Your task to perform on an android device: change your default location settings in chrome Image 0: 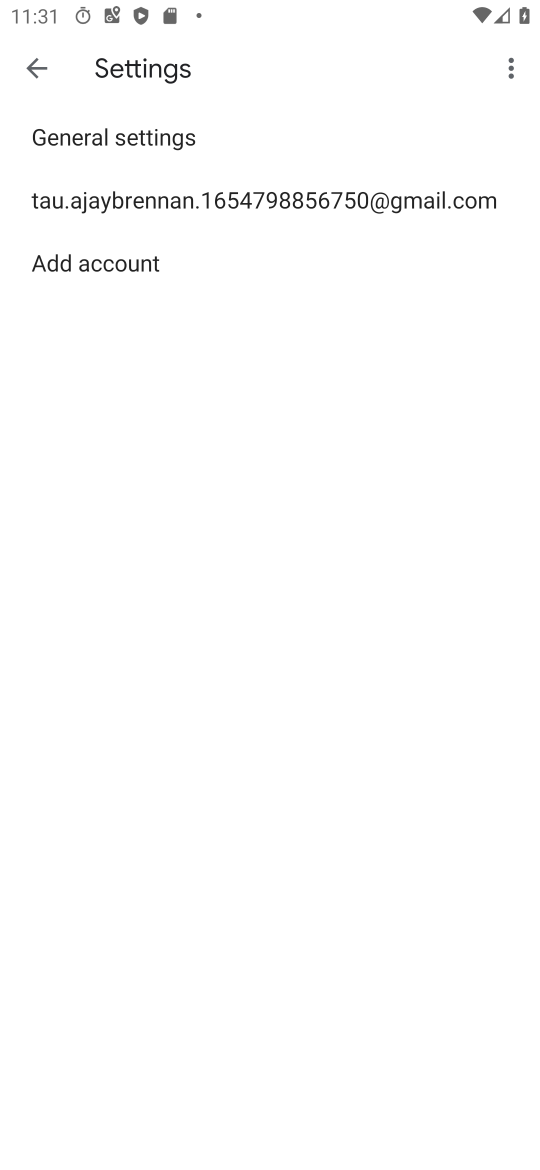
Step 0: click (49, 75)
Your task to perform on an android device: change your default location settings in chrome Image 1: 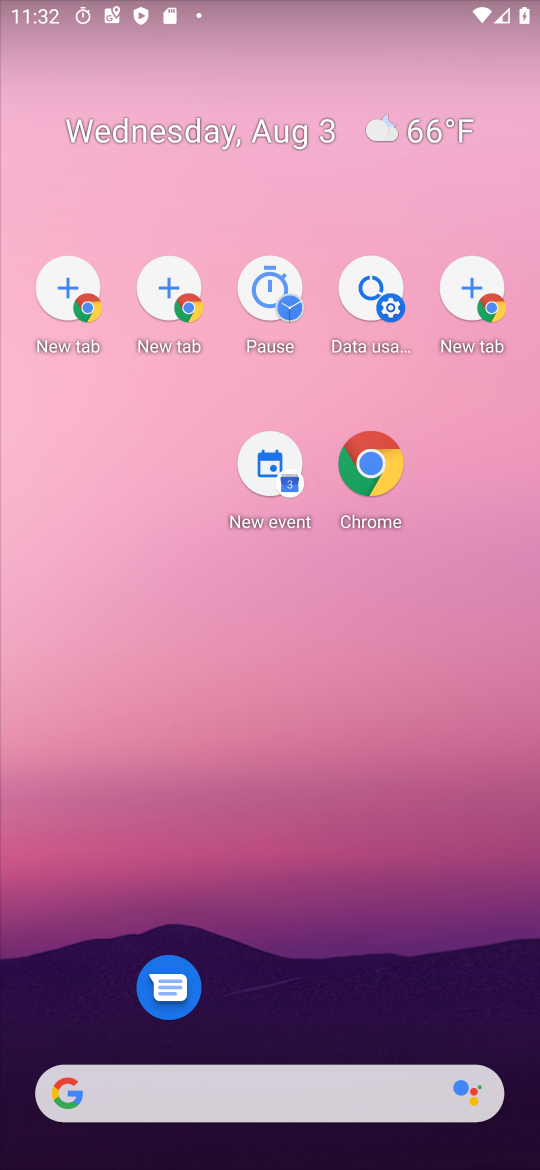
Step 1: drag from (331, 825) to (332, 106)
Your task to perform on an android device: change your default location settings in chrome Image 2: 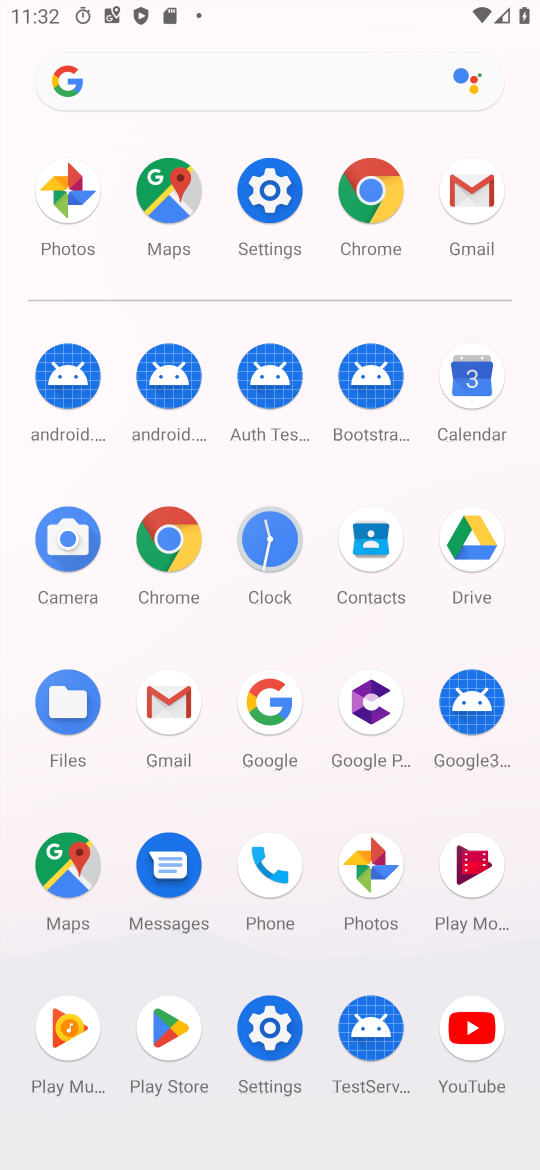
Step 2: click (381, 192)
Your task to perform on an android device: change your default location settings in chrome Image 3: 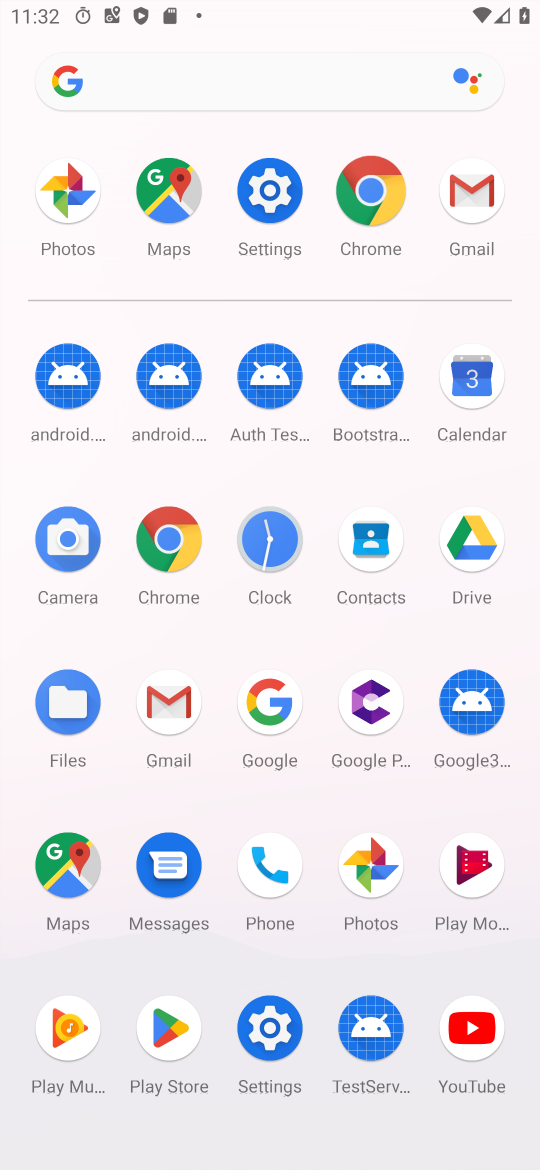
Step 3: click (373, 199)
Your task to perform on an android device: change your default location settings in chrome Image 4: 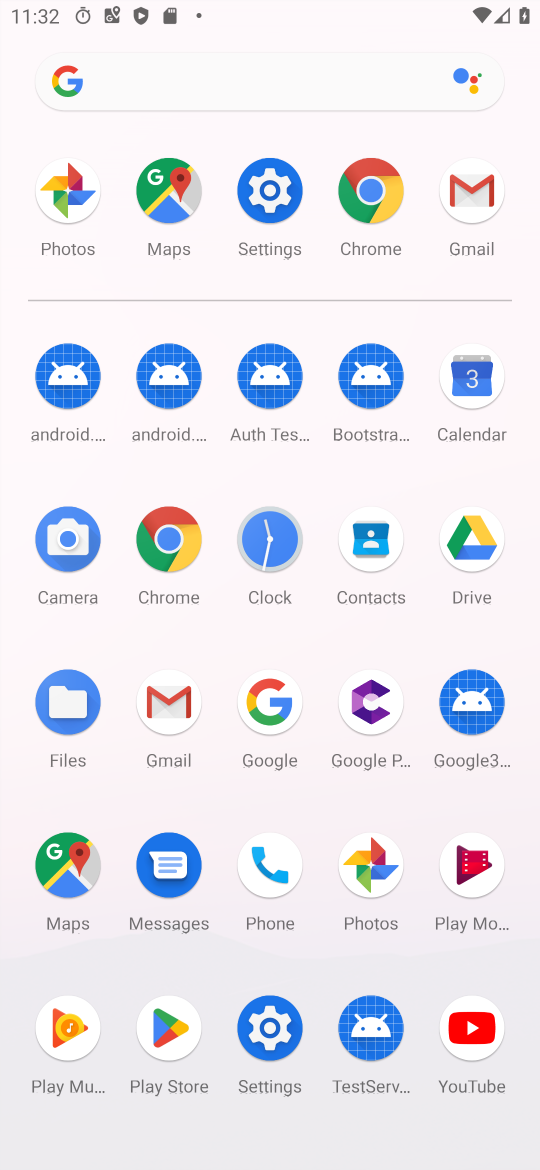
Step 4: click (385, 194)
Your task to perform on an android device: change your default location settings in chrome Image 5: 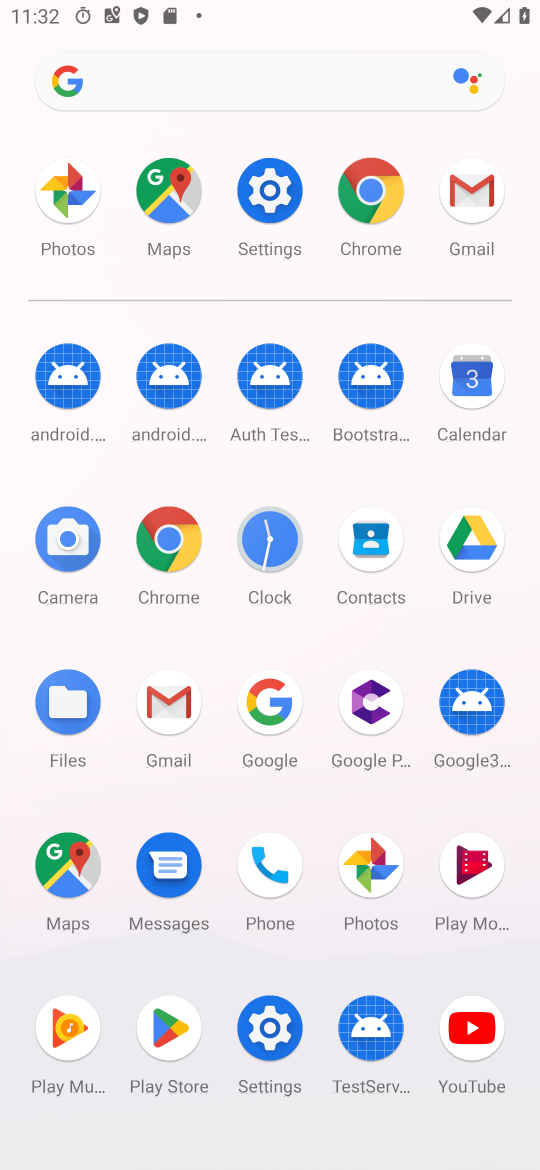
Step 5: click (381, 196)
Your task to perform on an android device: change your default location settings in chrome Image 6: 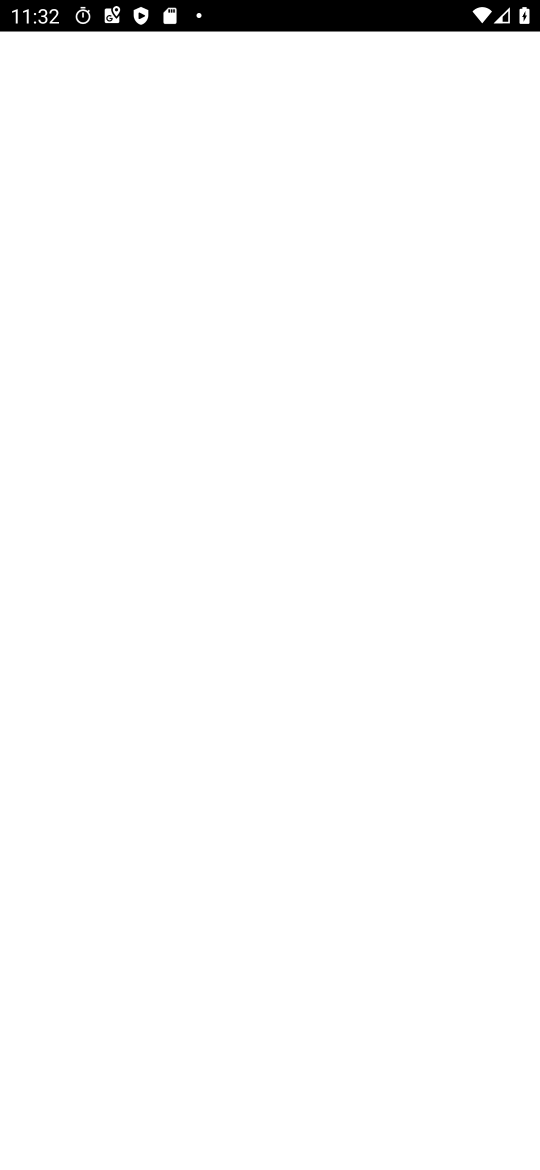
Step 6: click (360, 174)
Your task to perform on an android device: change your default location settings in chrome Image 7: 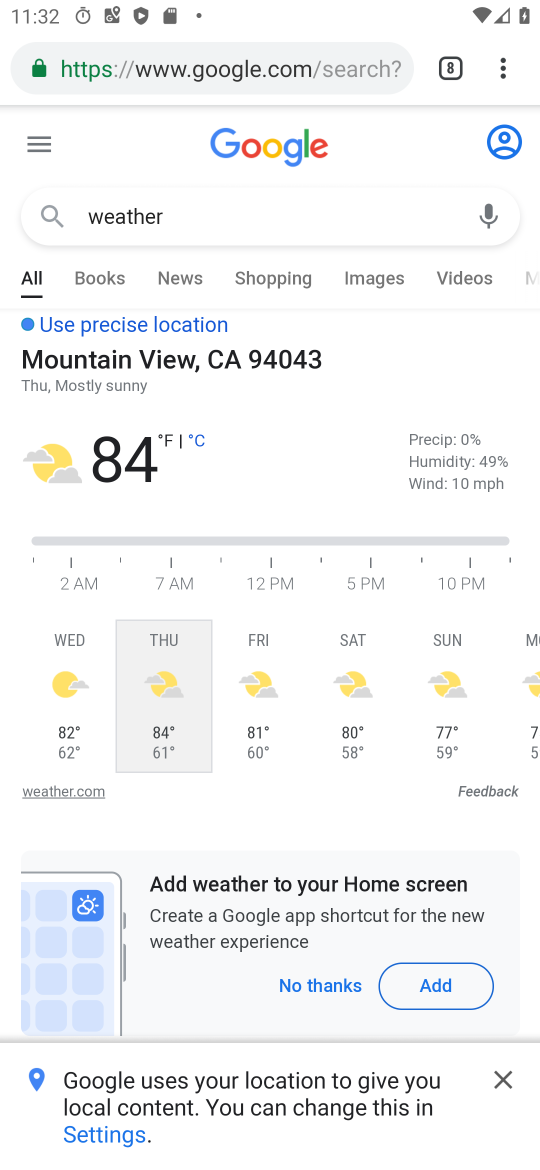
Step 7: drag from (506, 65) to (247, 770)
Your task to perform on an android device: change your default location settings in chrome Image 8: 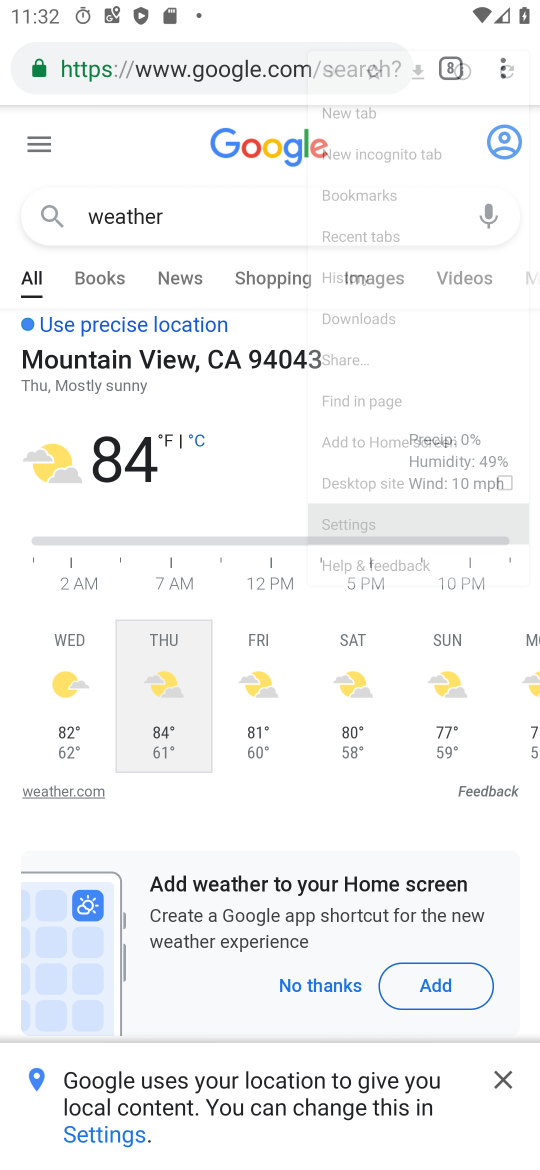
Step 8: click (248, 770)
Your task to perform on an android device: change your default location settings in chrome Image 9: 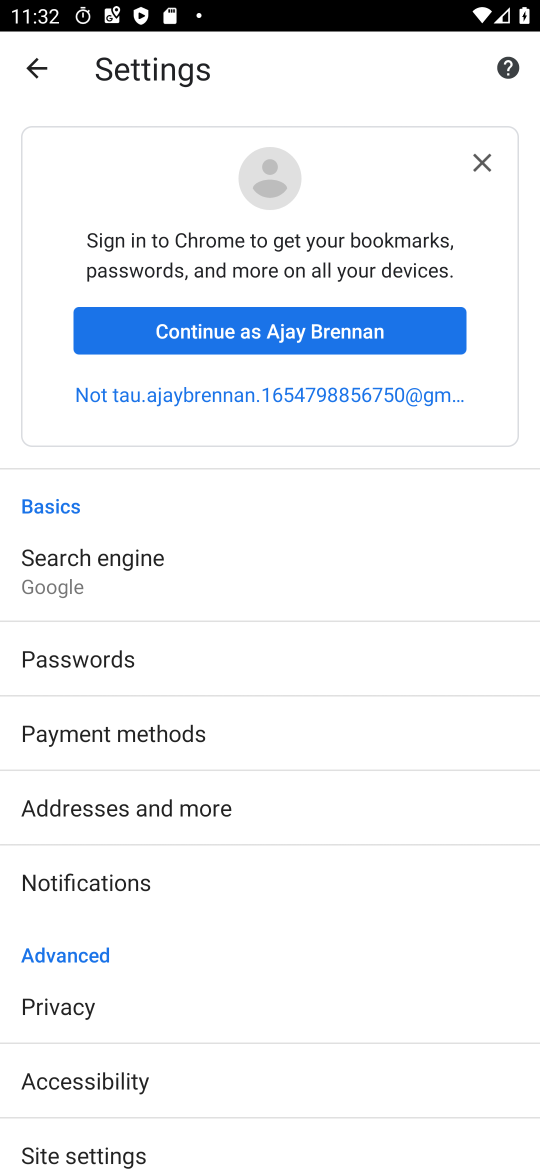
Step 9: drag from (185, 1016) to (134, 593)
Your task to perform on an android device: change your default location settings in chrome Image 10: 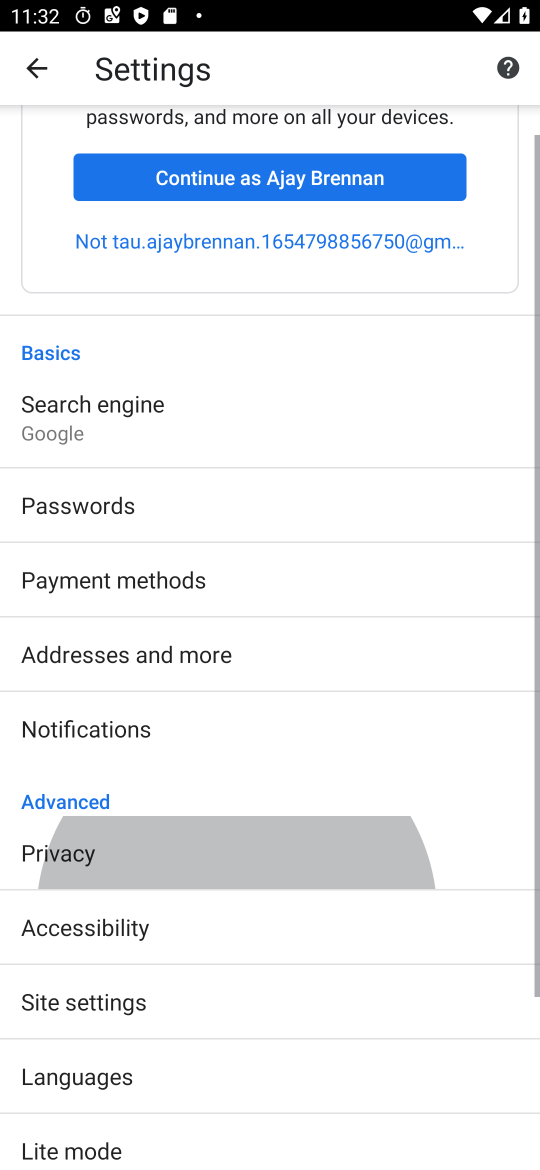
Step 10: drag from (243, 938) to (164, 590)
Your task to perform on an android device: change your default location settings in chrome Image 11: 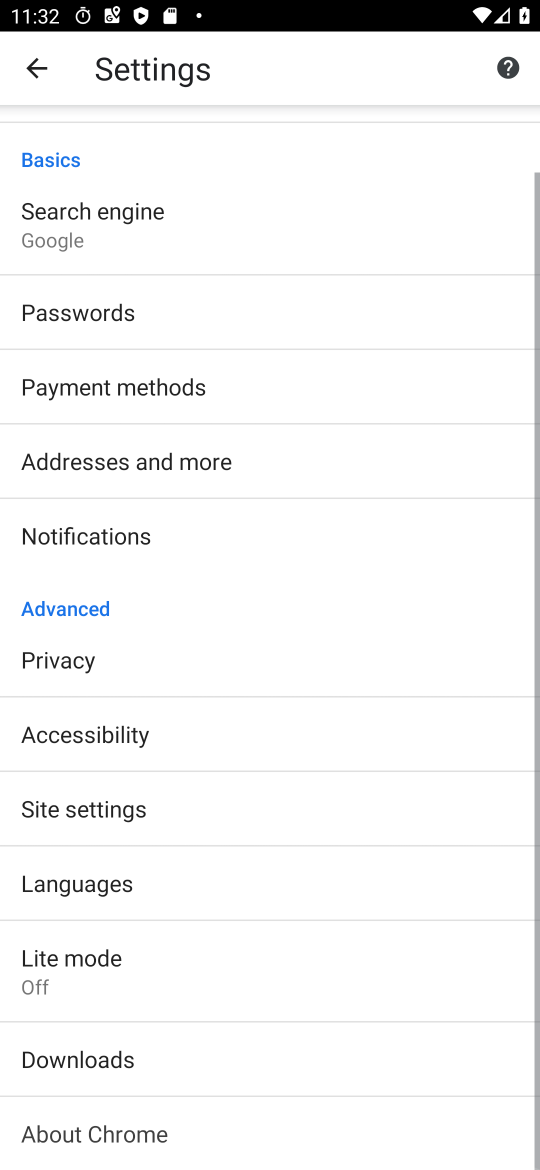
Step 11: drag from (208, 913) to (206, 765)
Your task to perform on an android device: change your default location settings in chrome Image 12: 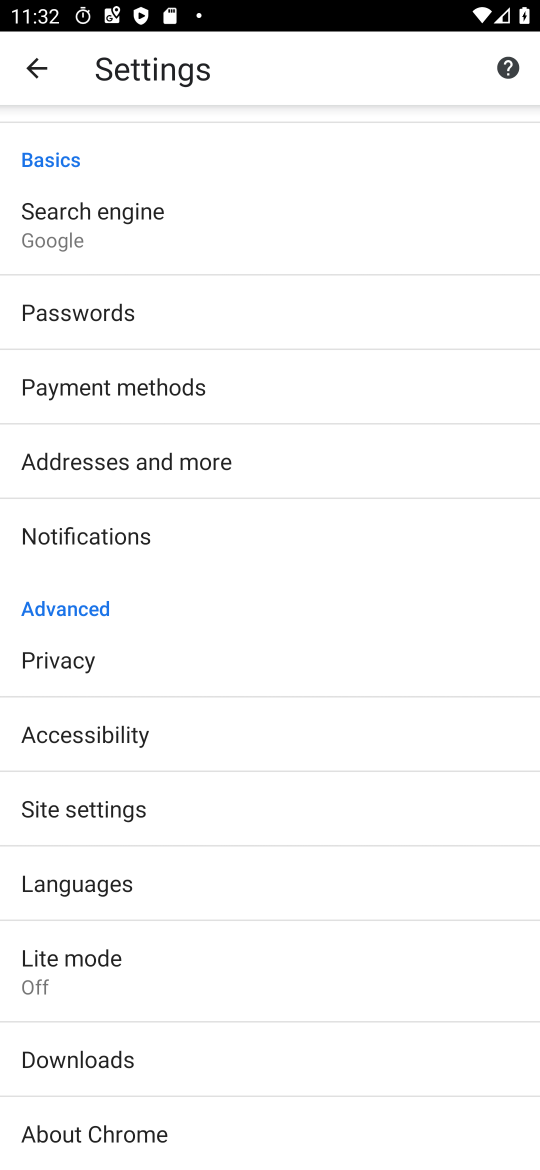
Step 12: click (76, 800)
Your task to perform on an android device: change your default location settings in chrome Image 13: 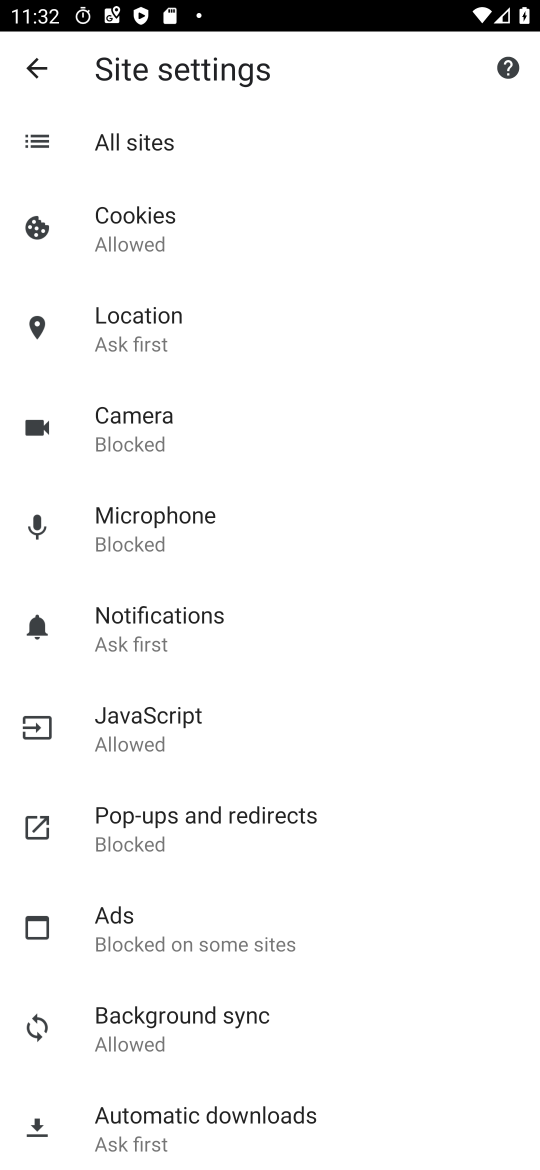
Step 13: click (96, 336)
Your task to perform on an android device: change your default location settings in chrome Image 14: 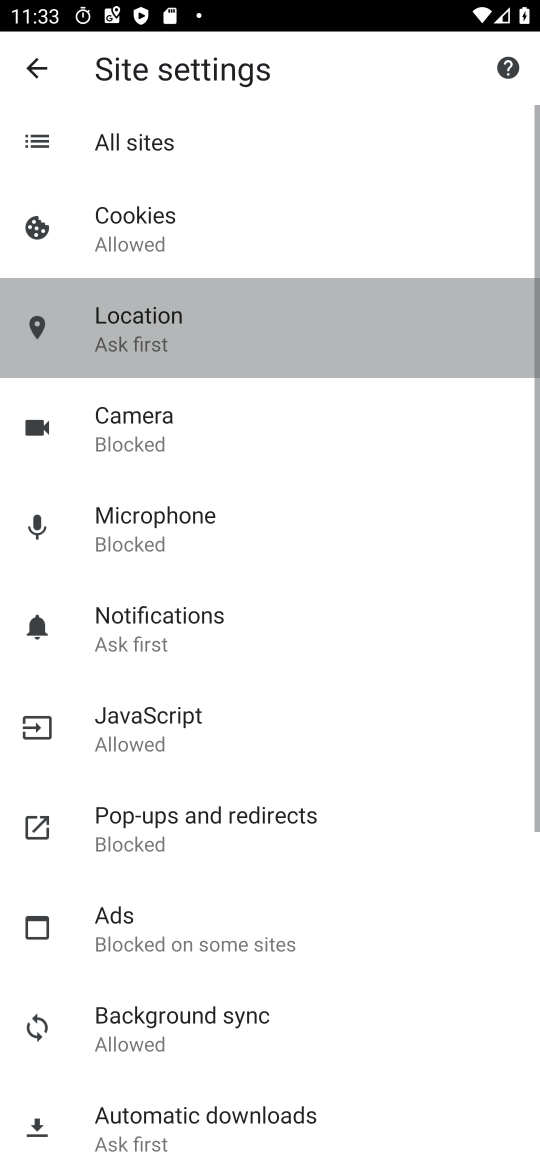
Step 14: click (101, 336)
Your task to perform on an android device: change your default location settings in chrome Image 15: 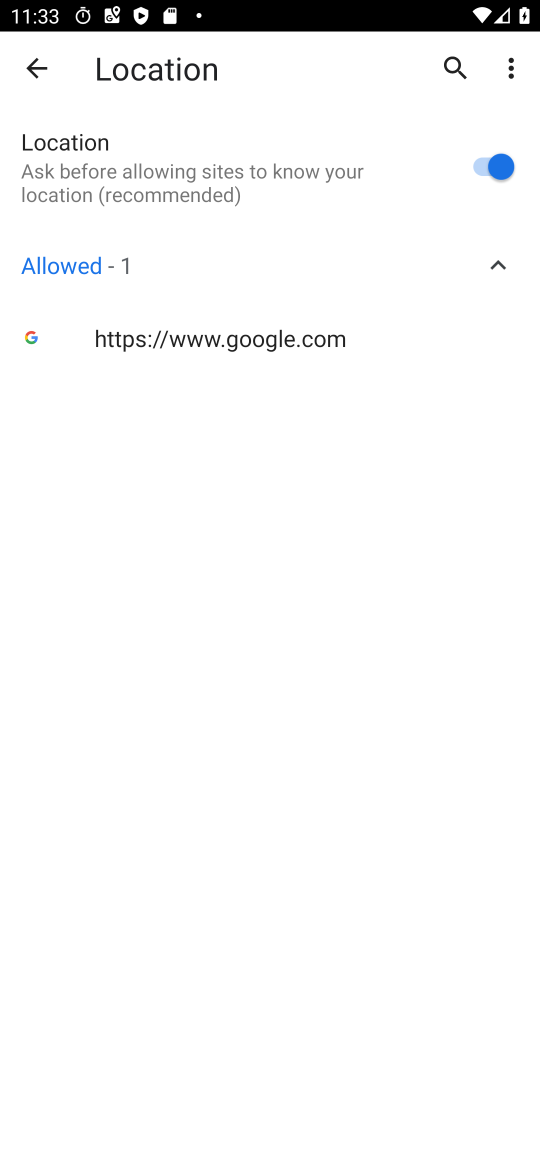
Step 15: task complete